Your task to perform on an android device: check storage Image 0: 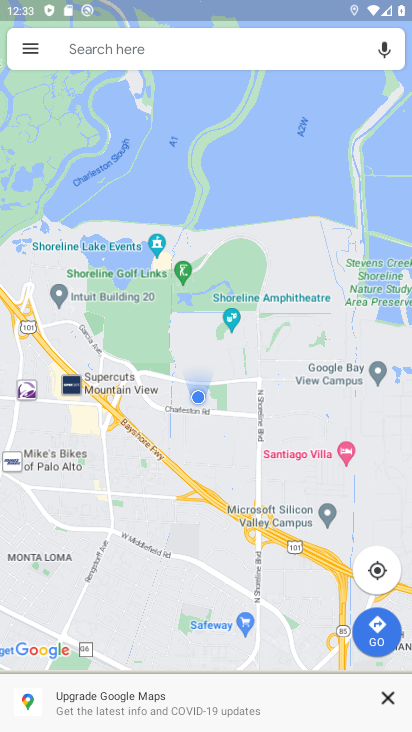
Step 0: press home button
Your task to perform on an android device: check storage Image 1: 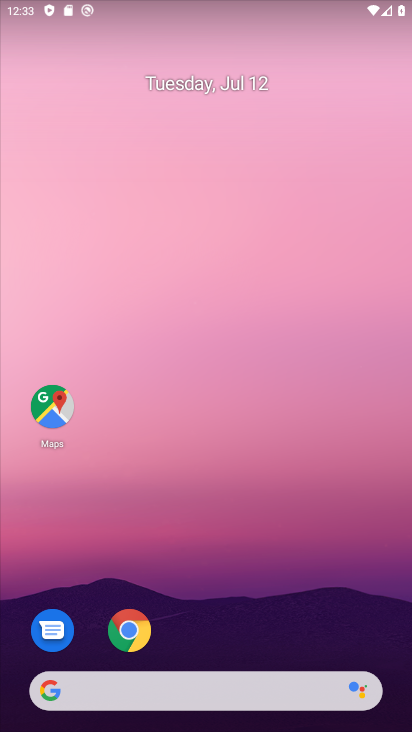
Step 1: drag from (356, 630) to (314, 189)
Your task to perform on an android device: check storage Image 2: 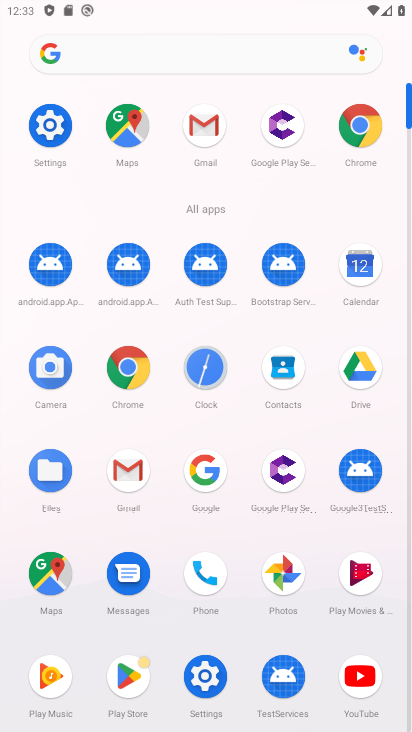
Step 2: click (205, 673)
Your task to perform on an android device: check storage Image 3: 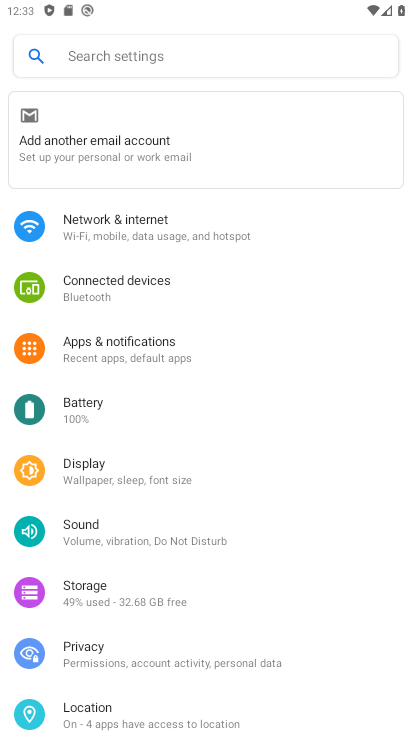
Step 3: click (90, 595)
Your task to perform on an android device: check storage Image 4: 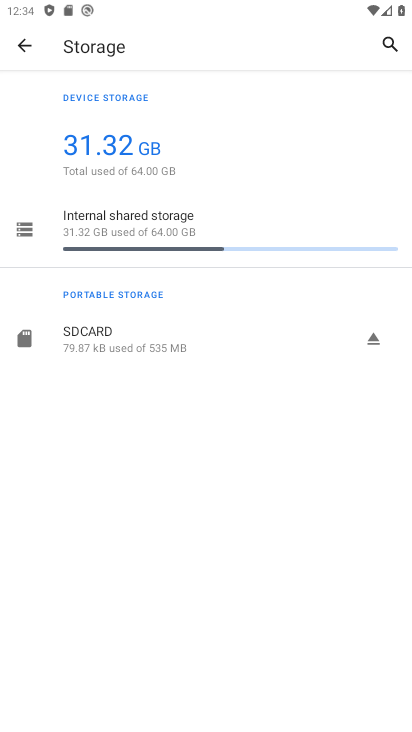
Step 4: task complete